Your task to perform on an android device: toggle show notifications on the lock screen Image 0: 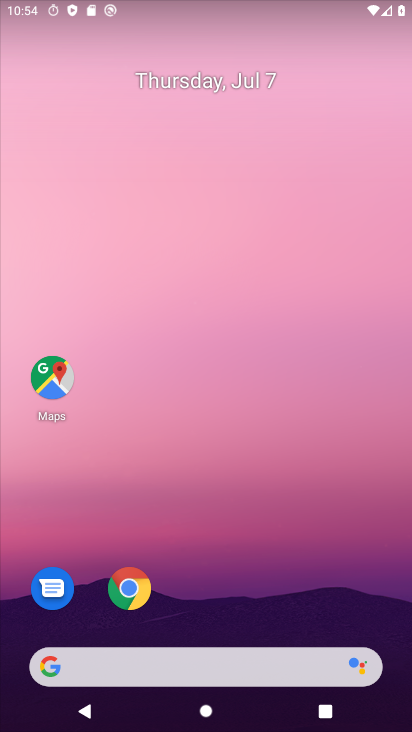
Step 0: drag from (278, 593) to (252, 79)
Your task to perform on an android device: toggle show notifications on the lock screen Image 1: 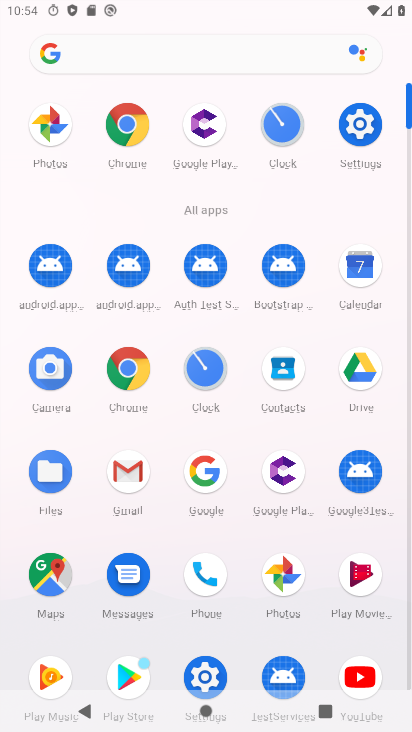
Step 1: click (354, 133)
Your task to perform on an android device: toggle show notifications on the lock screen Image 2: 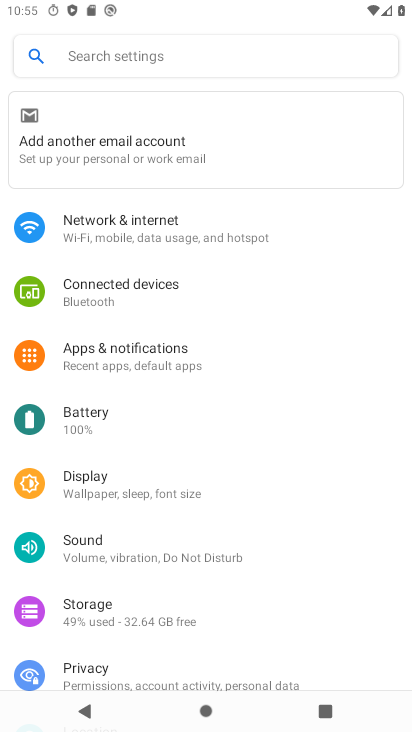
Step 2: click (140, 356)
Your task to perform on an android device: toggle show notifications on the lock screen Image 3: 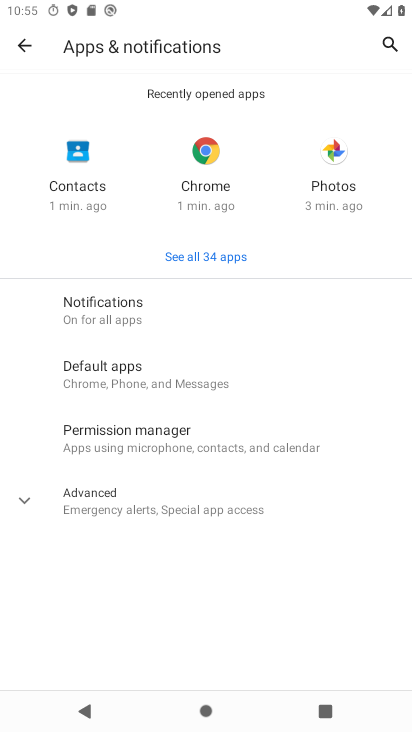
Step 3: click (81, 313)
Your task to perform on an android device: toggle show notifications on the lock screen Image 4: 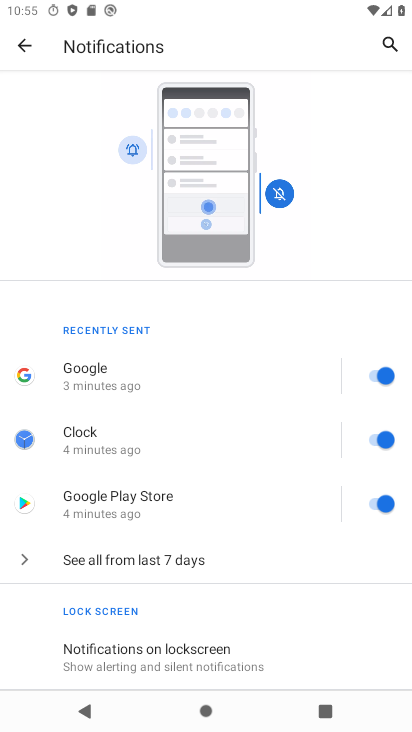
Step 4: click (182, 647)
Your task to perform on an android device: toggle show notifications on the lock screen Image 5: 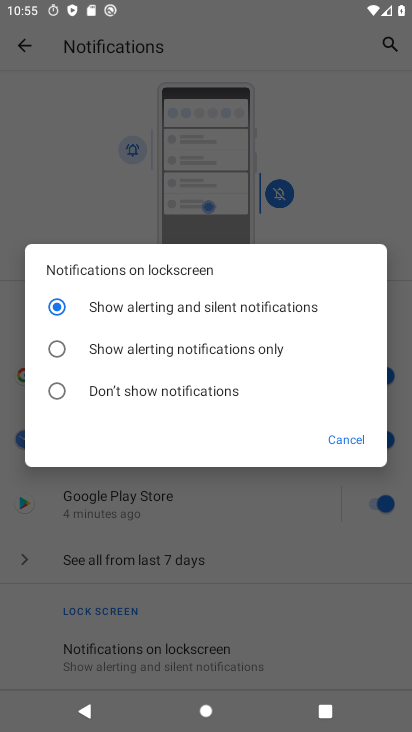
Step 5: click (181, 351)
Your task to perform on an android device: toggle show notifications on the lock screen Image 6: 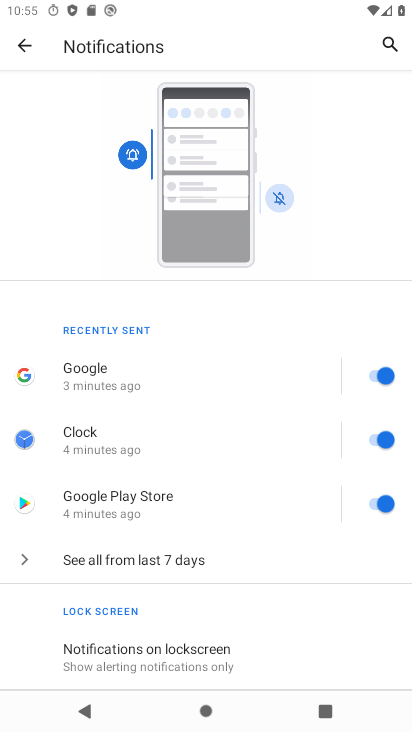
Step 6: task complete